Your task to perform on an android device: check out phone information Image 0: 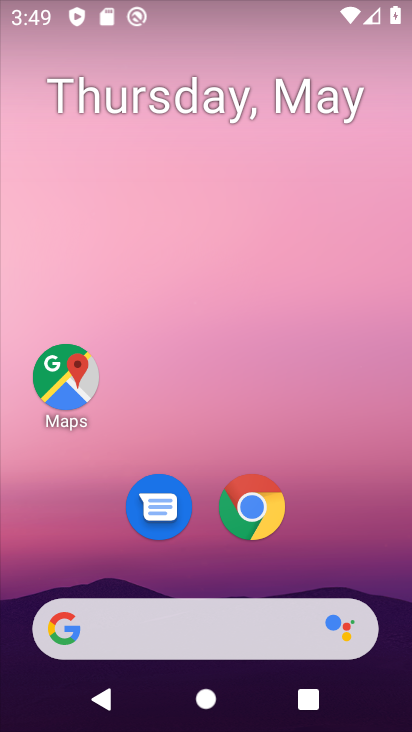
Step 0: drag from (285, 550) to (216, 64)
Your task to perform on an android device: check out phone information Image 1: 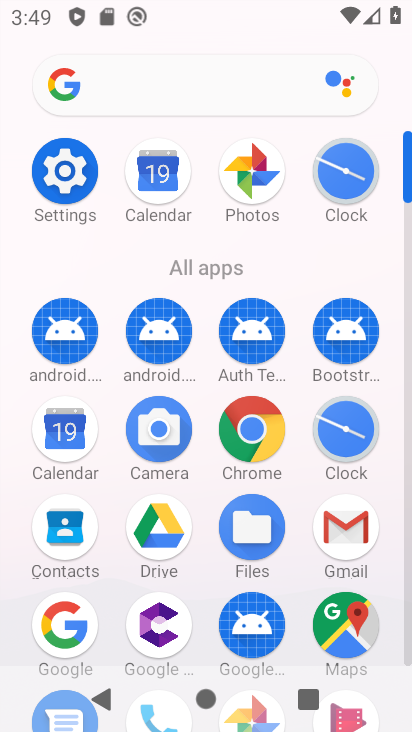
Step 1: click (59, 180)
Your task to perform on an android device: check out phone information Image 2: 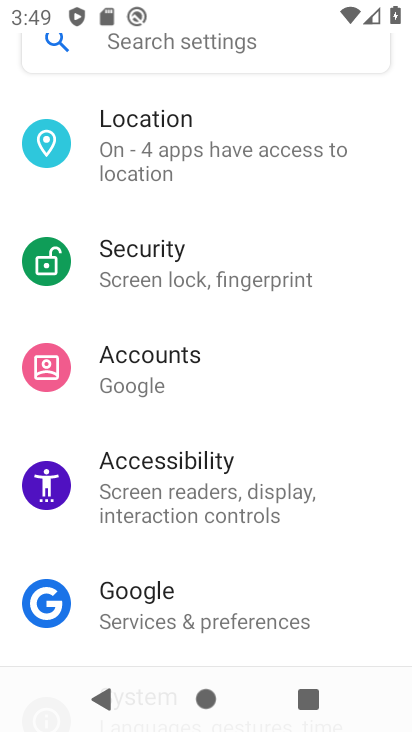
Step 2: drag from (180, 518) to (125, 241)
Your task to perform on an android device: check out phone information Image 3: 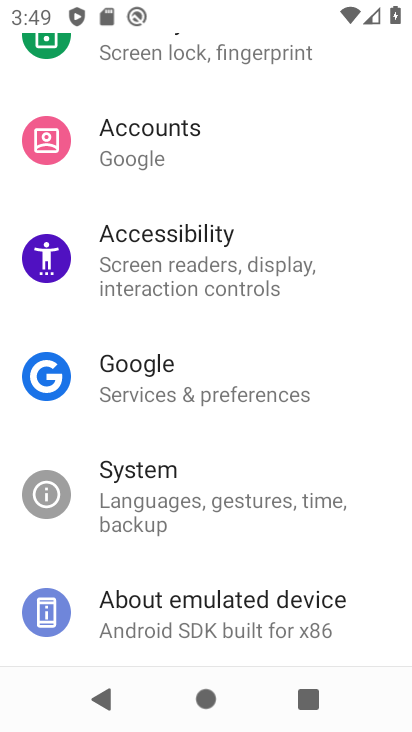
Step 3: drag from (134, 565) to (133, 288)
Your task to perform on an android device: check out phone information Image 4: 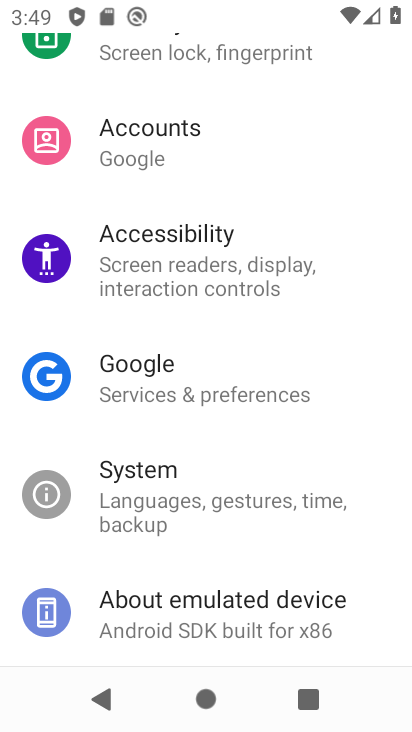
Step 4: click (161, 592)
Your task to perform on an android device: check out phone information Image 5: 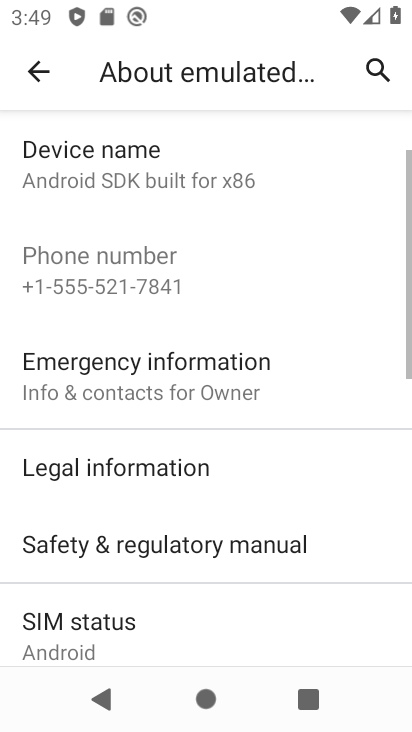
Step 5: task complete